Your task to perform on an android device: turn off location history Image 0: 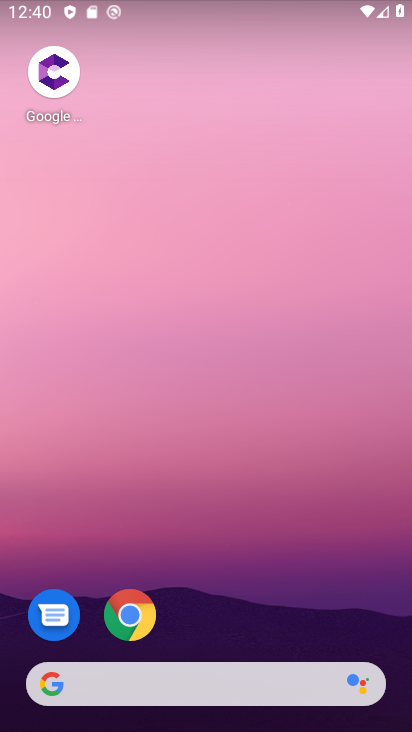
Step 0: drag from (275, 615) to (332, 14)
Your task to perform on an android device: turn off location history Image 1: 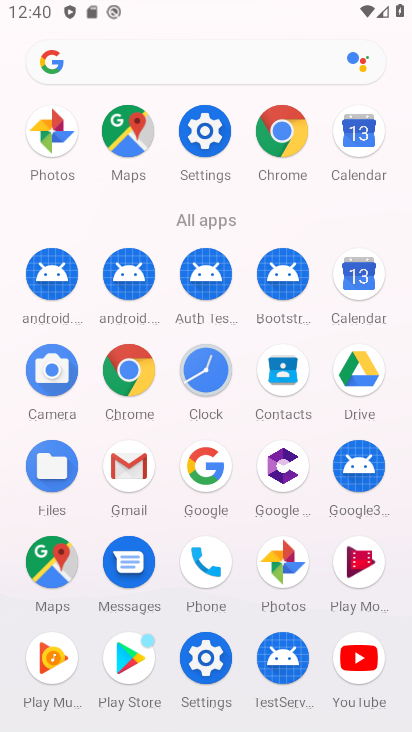
Step 1: click (217, 659)
Your task to perform on an android device: turn off location history Image 2: 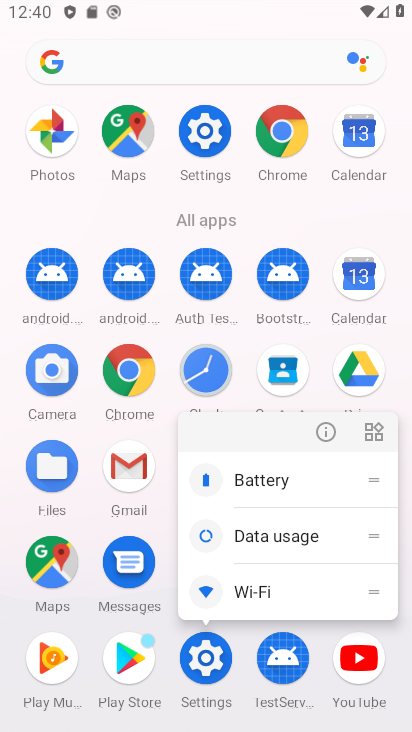
Step 2: click (203, 654)
Your task to perform on an android device: turn off location history Image 3: 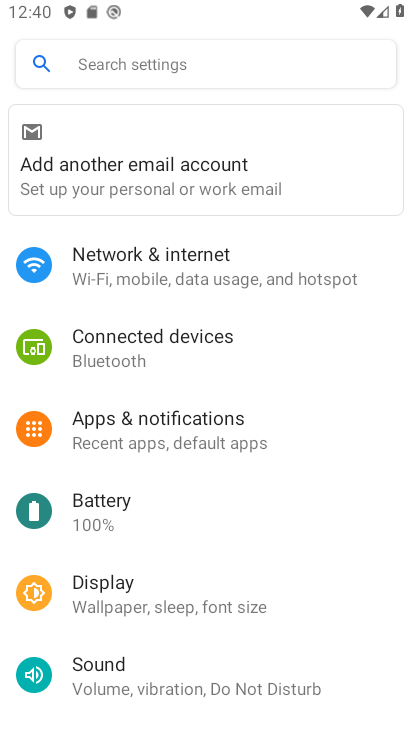
Step 3: drag from (177, 495) to (230, 285)
Your task to perform on an android device: turn off location history Image 4: 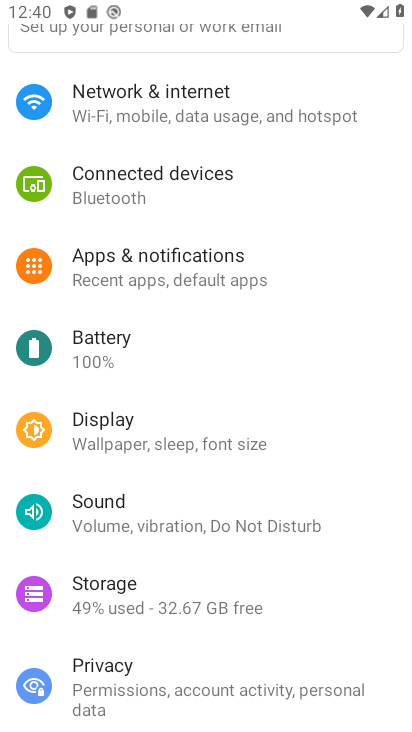
Step 4: drag from (189, 608) to (225, 368)
Your task to perform on an android device: turn off location history Image 5: 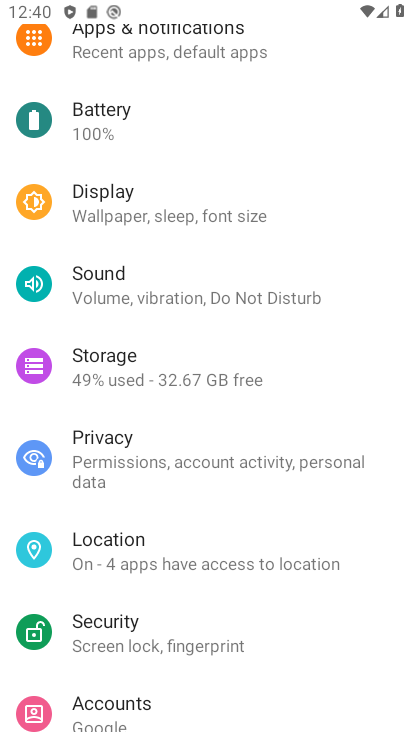
Step 5: click (182, 575)
Your task to perform on an android device: turn off location history Image 6: 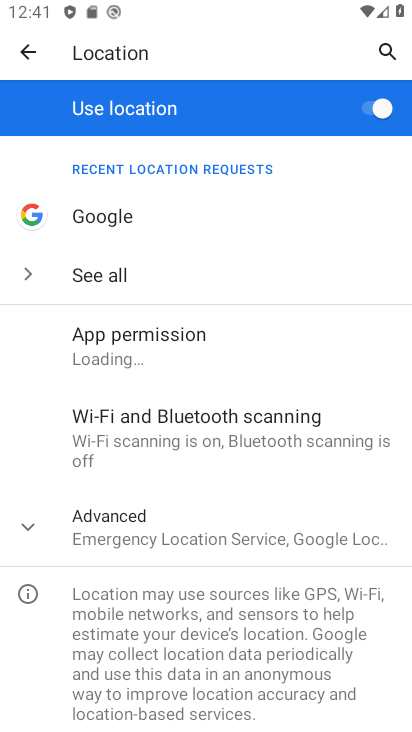
Step 6: click (178, 526)
Your task to perform on an android device: turn off location history Image 7: 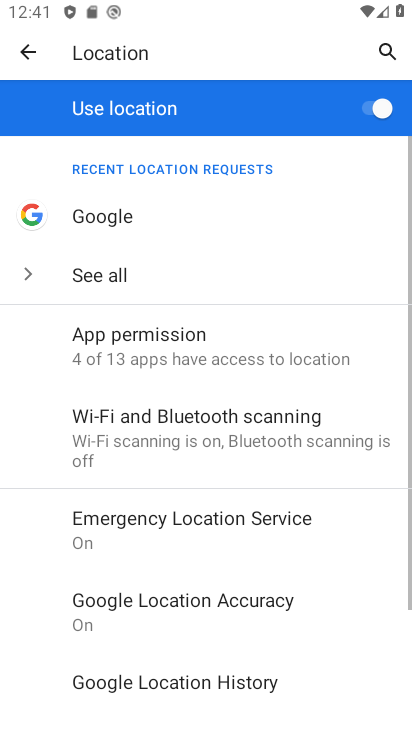
Step 7: click (216, 666)
Your task to perform on an android device: turn off location history Image 8: 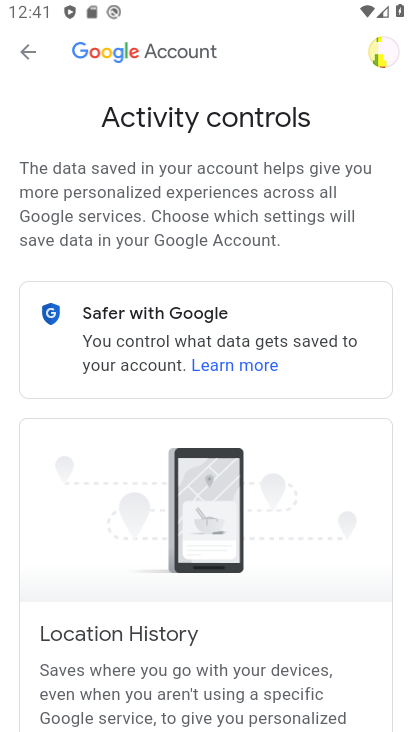
Step 8: task complete